Your task to perform on an android device: turn on improve location accuracy Image 0: 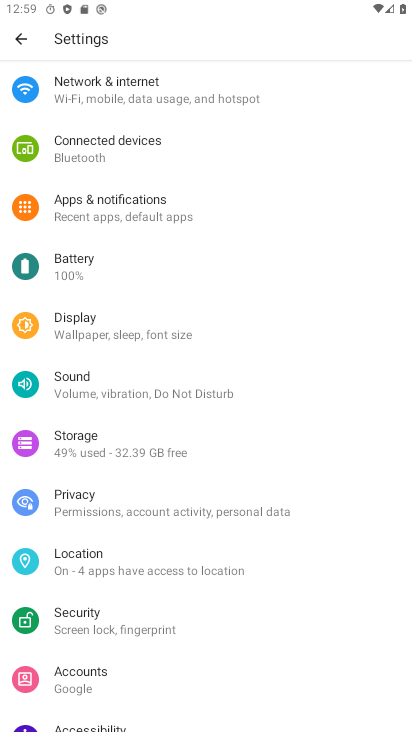
Step 0: click (140, 568)
Your task to perform on an android device: turn on improve location accuracy Image 1: 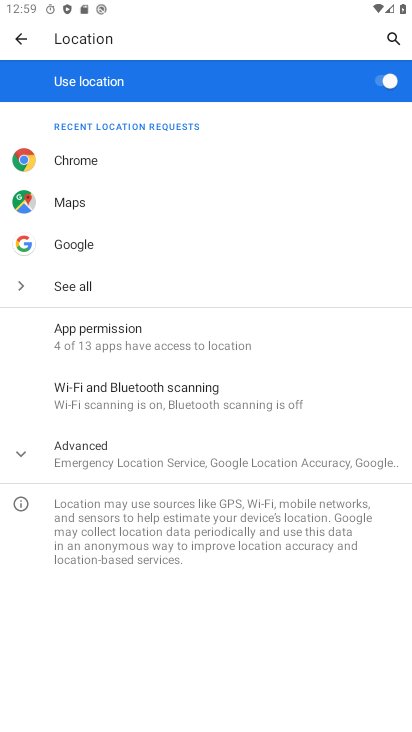
Step 1: click (126, 448)
Your task to perform on an android device: turn on improve location accuracy Image 2: 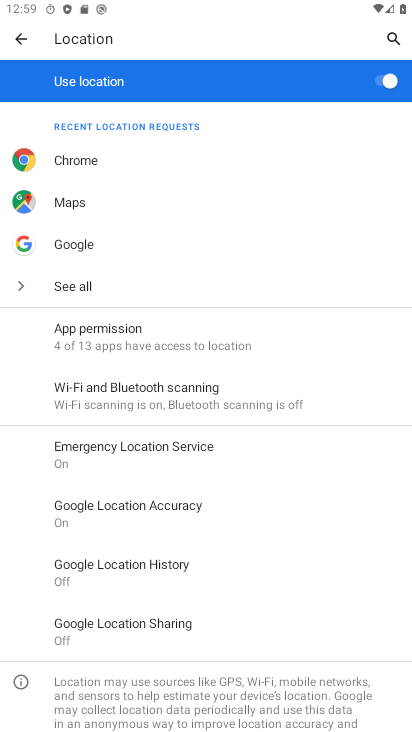
Step 2: click (156, 509)
Your task to perform on an android device: turn on improve location accuracy Image 3: 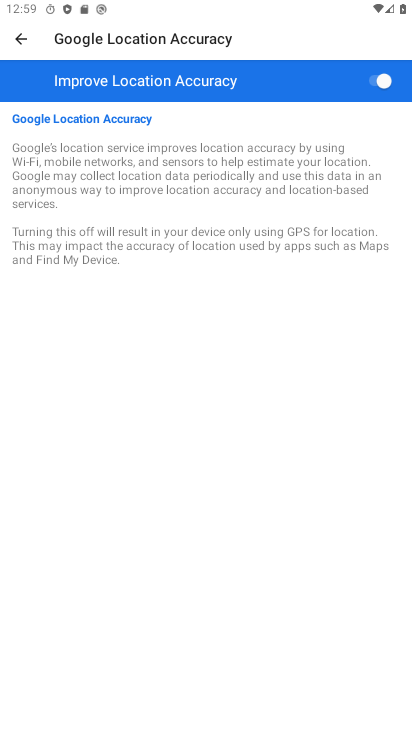
Step 3: task complete